Your task to perform on an android device: Open battery settings Image 0: 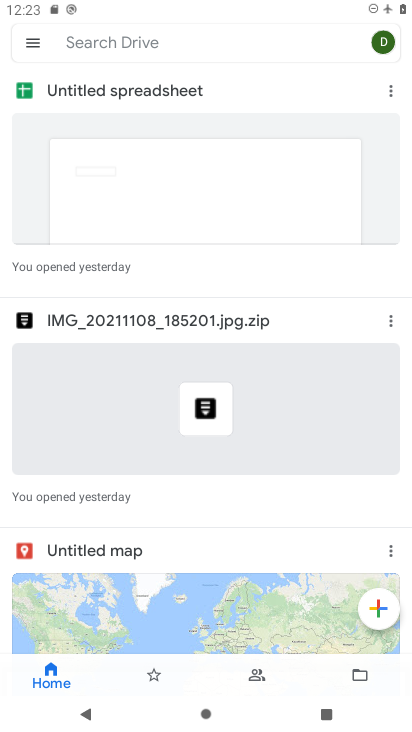
Step 0: press home button
Your task to perform on an android device: Open battery settings Image 1: 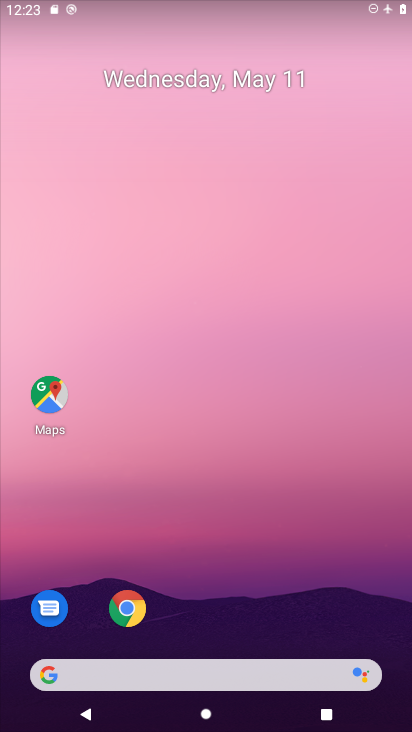
Step 1: drag from (264, 526) to (282, 86)
Your task to perform on an android device: Open battery settings Image 2: 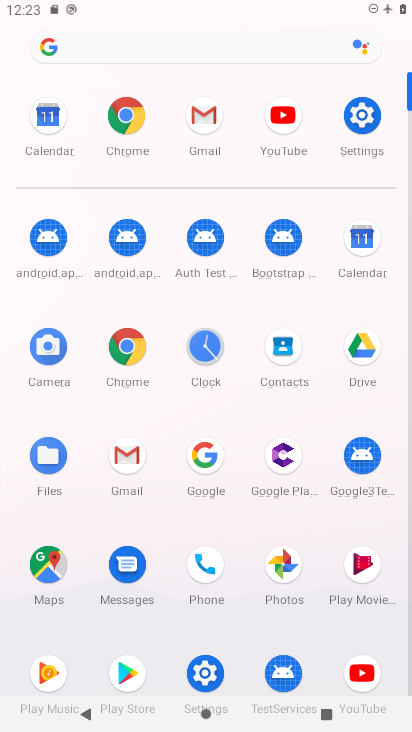
Step 2: click (360, 115)
Your task to perform on an android device: Open battery settings Image 3: 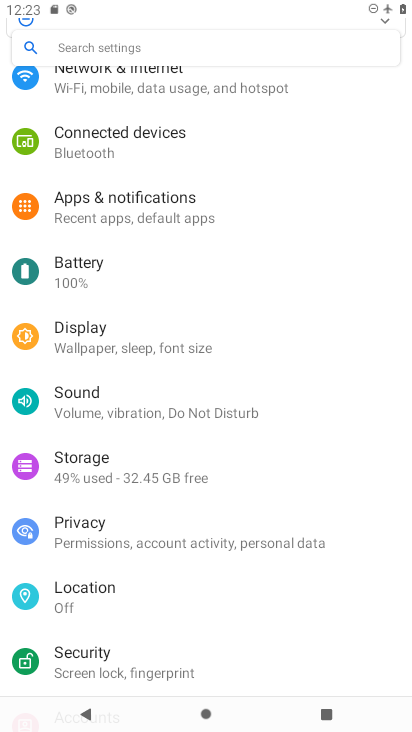
Step 3: click (121, 273)
Your task to perform on an android device: Open battery settings Image 4: 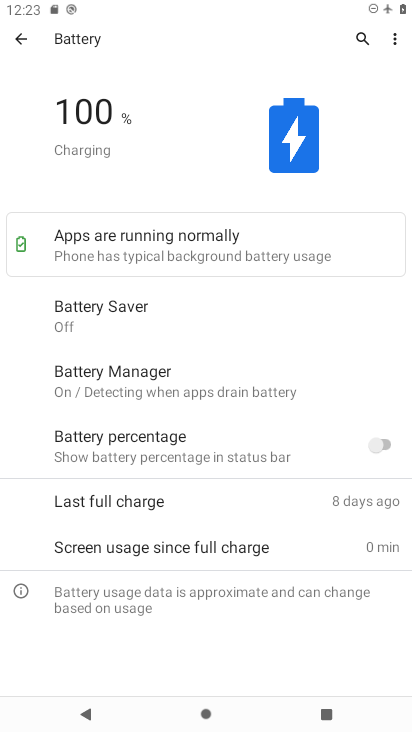
Step 4: task complete